Your task to perform on an android device: Go to Yahoo.com Image 0: 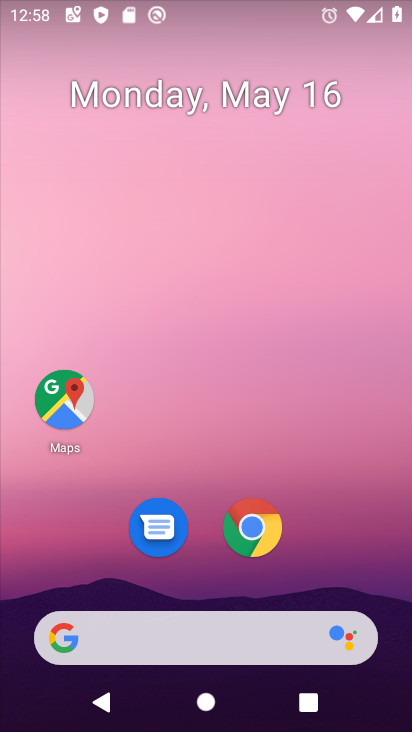
Step 0: click (243, 539)
Your task to perform on an android device: Go to Yahoo.com Image 1: 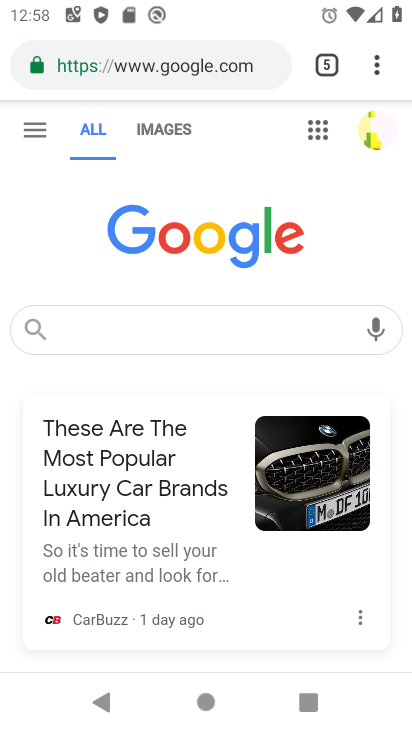
Step 1: click (196, 81)
Your task to perform on an android device: Go to Yahoo.com Image 2: 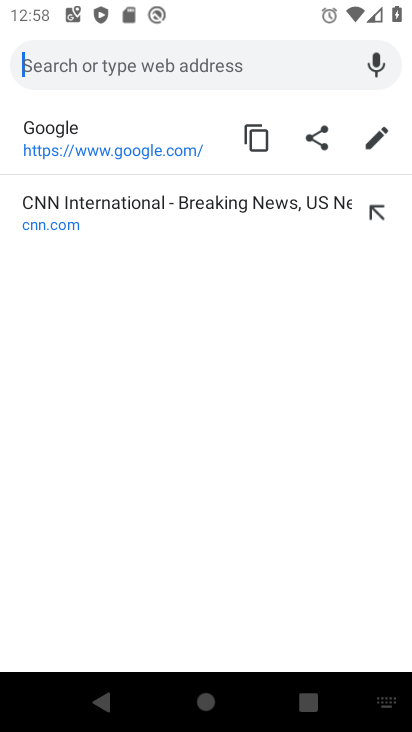
Step 2: type "yahoo.com"
Your task to perform on an android device: Go to Yahoo.com Image 3: 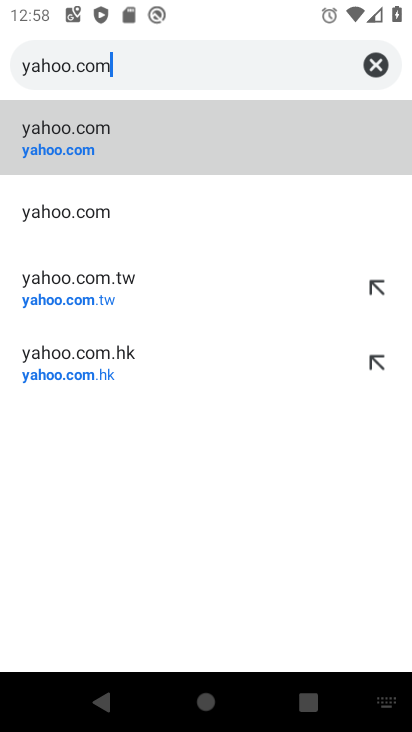
Step 3: click (282, 140)
Your task to perform on an android device: Go to Yahoo.com Image 4: 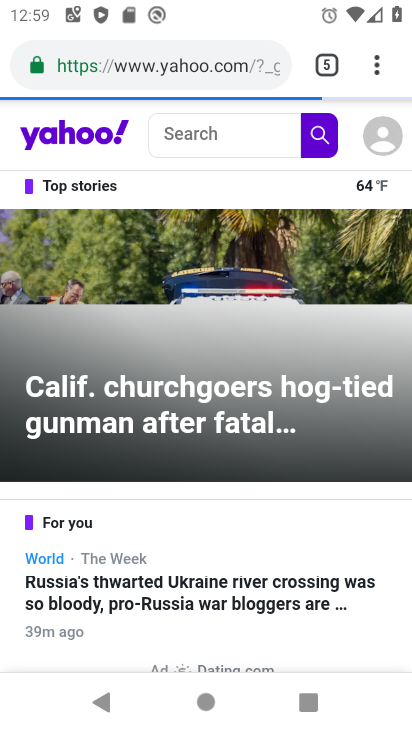
Step 4: task complete